Your task to perform on an android device: toggle airplane mode Image 0: 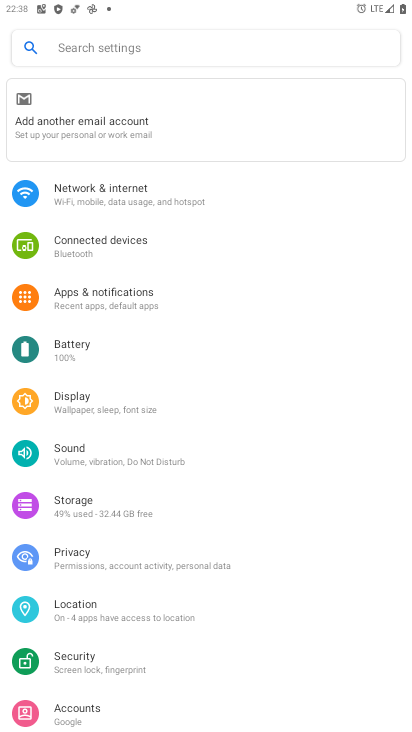
Step 0: click (125, 201)
Your task to perform on an android device: toggle airplane mode Image 1: 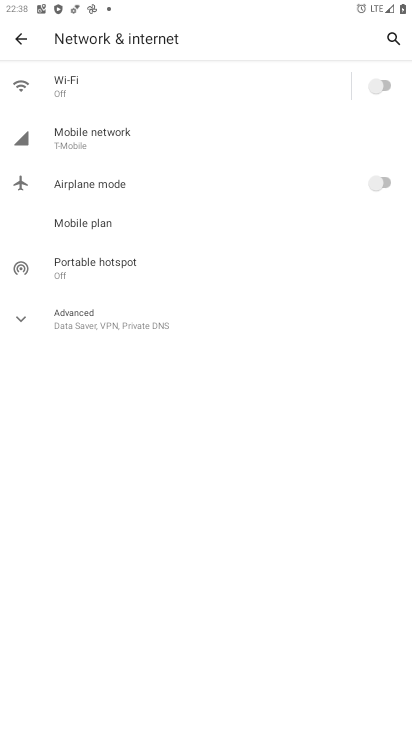
Step 1: click (377, 187)
Your task to perform on an android device: toggle airplane mode Image 2: 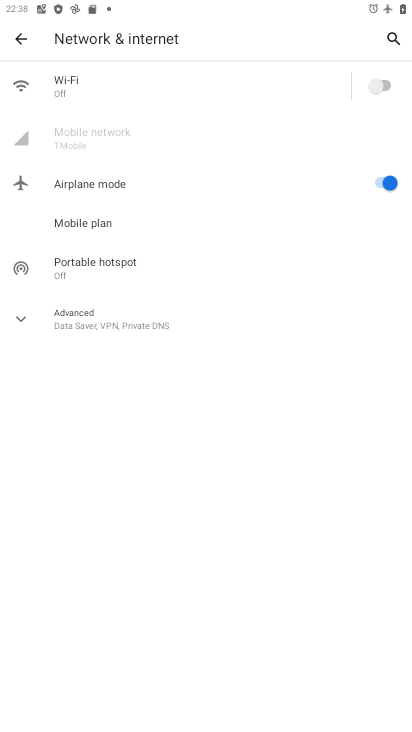
Step 2: task complete